Your task to perform on an android device: change the clock display to digital Image 0: 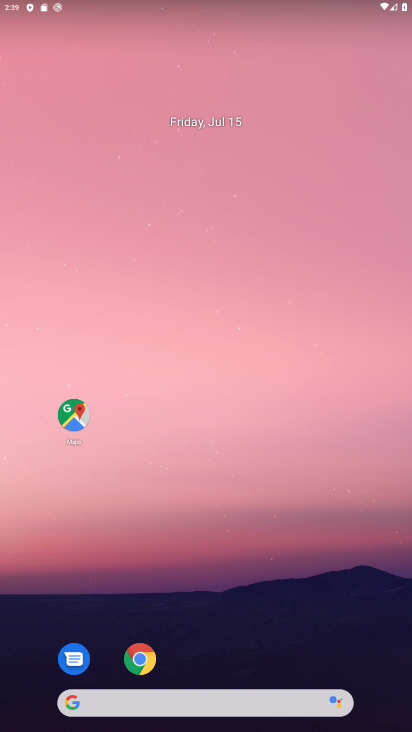
Step 0: drag from (174, 585) to (223, 3)
Your task to perform on an android device: change the clock display to digital Image 1: 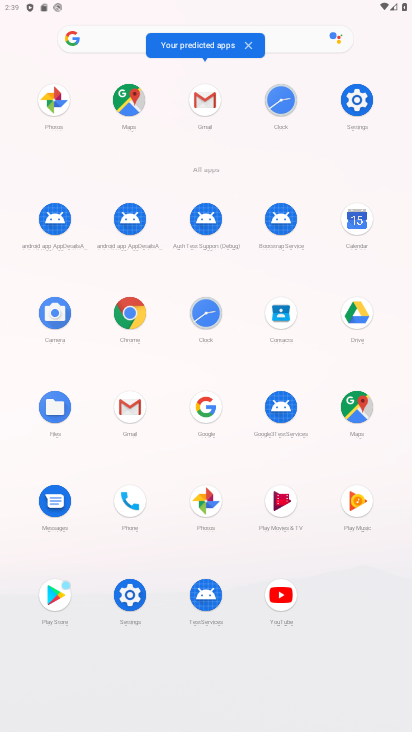
Step 1: click (210, 323)
Your task to perform on an android device: change the clock display to digital Image 2: 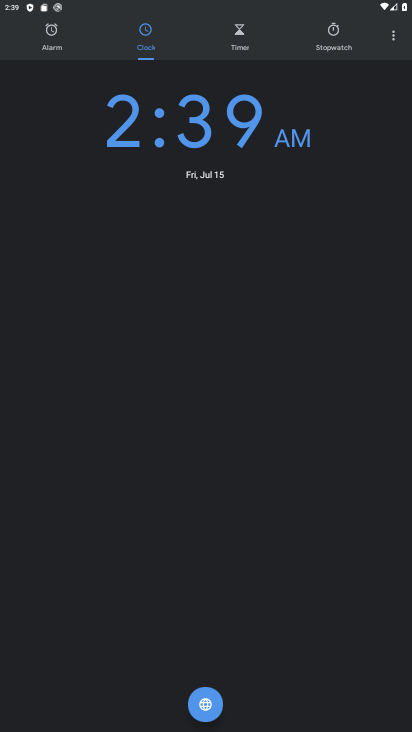
Step 2: click (395, 42)
Your task to perform on an android device: change the clock display to digital Image 3: 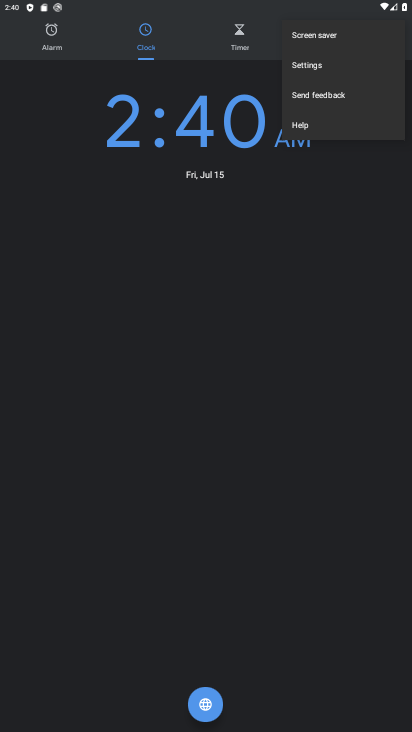
Step 3: click (323, 72)
Your task to perform on an android device: change the clock display to digital Image 4: 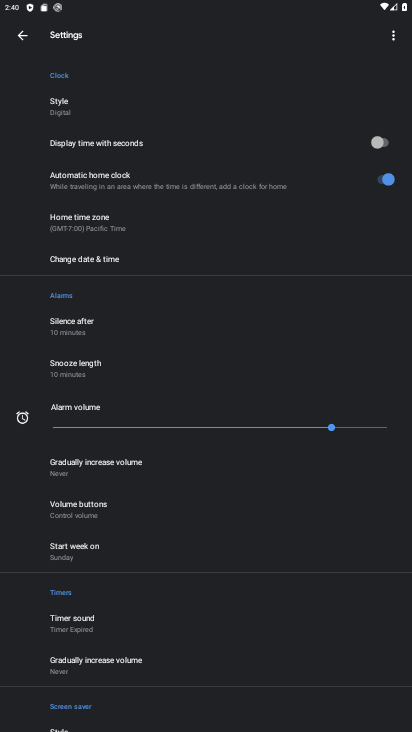
Step 4: task complete